Your task to perform on an android device: Go to Android settings Image 0: 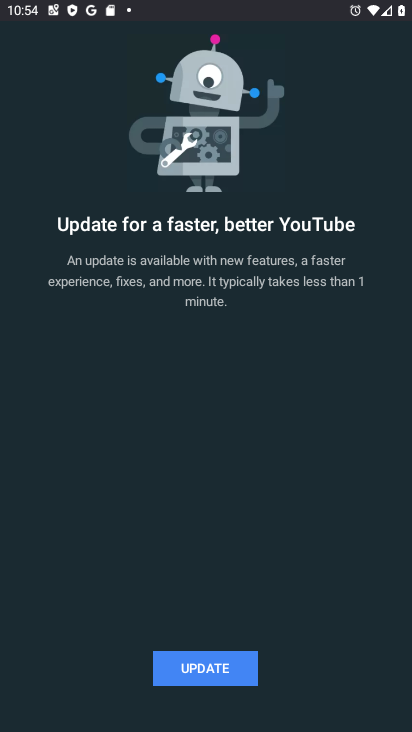
Step 0: press home button
Your task to perform on an android device: Go to Android settings Image 1: 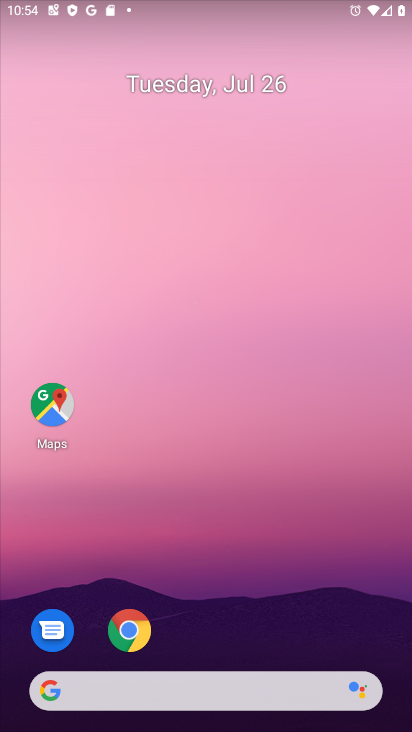
Step 1: drag from (231, 718) to (320, 79)
Your task to perform on an android device: Go to Android settings Image 2: 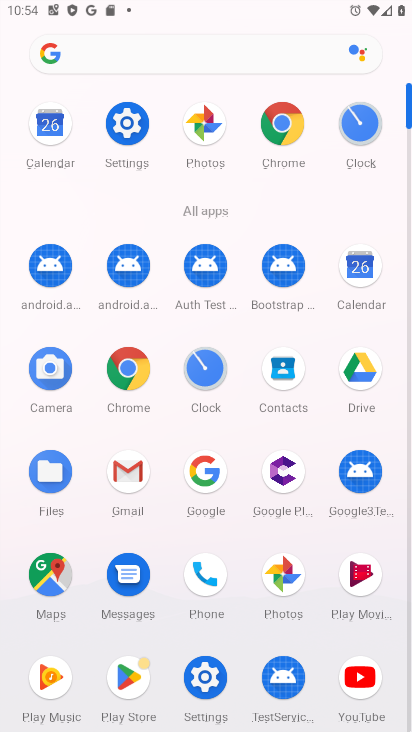
Step 2: click (109, 122)
Your task to perform on an android device: Go to Android settings Image 3: 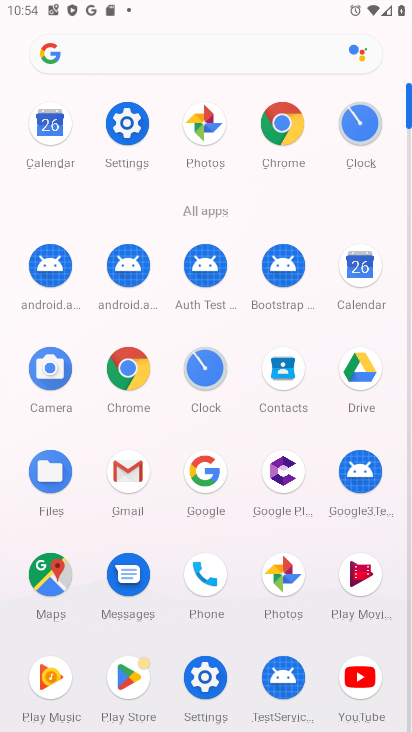
Step 3: click (109, 122)
Your task to perform on an android device: Go to Android settings Image 4: 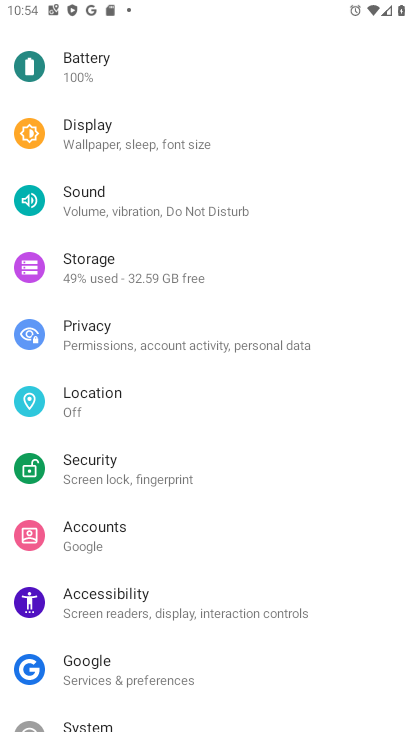
Step 4: drag from (143, 661) to (202, 84)
Your task to perform on an android device: Go to Android settings Image 5: 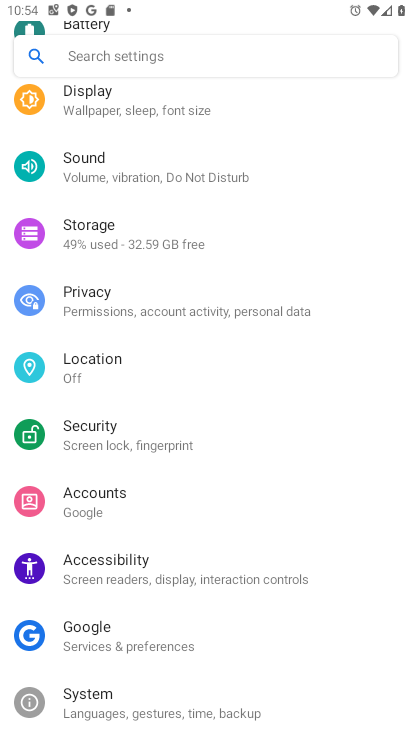
Step 5: drag from (174, 693) to (235, 39)
Your task to perform on an android device: Go to Android settings Image 6: 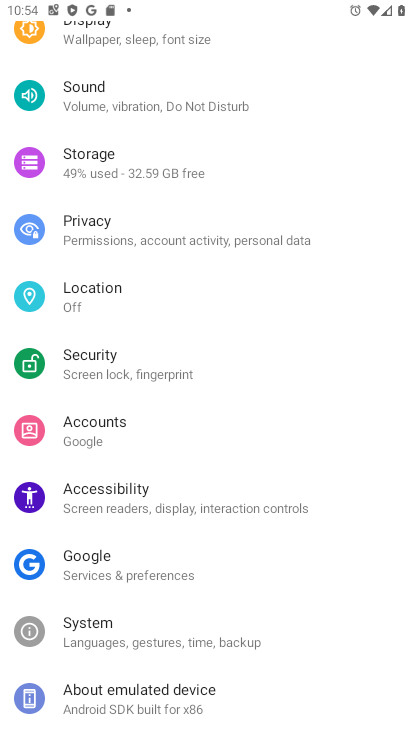
Step 6: click (195, 689)
Your task to perform on an android device: Go to Android settings Image 7: 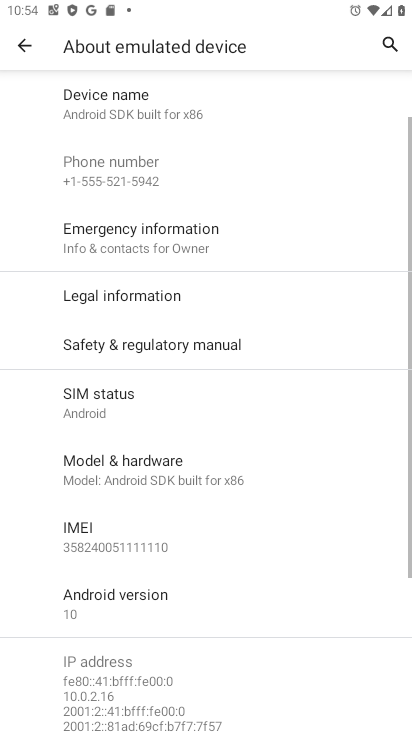
Step 7: task complete